Your task to perform on an android device: open wifi settings Image 0: 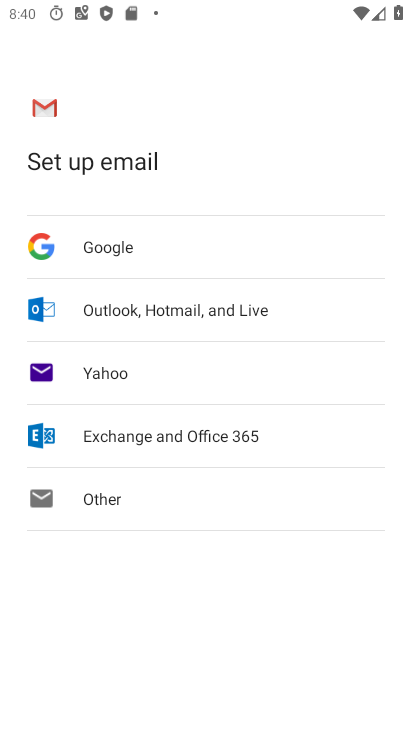
Step 0: press back button
Your task to perform on an android device: open wifi settings Image 1: 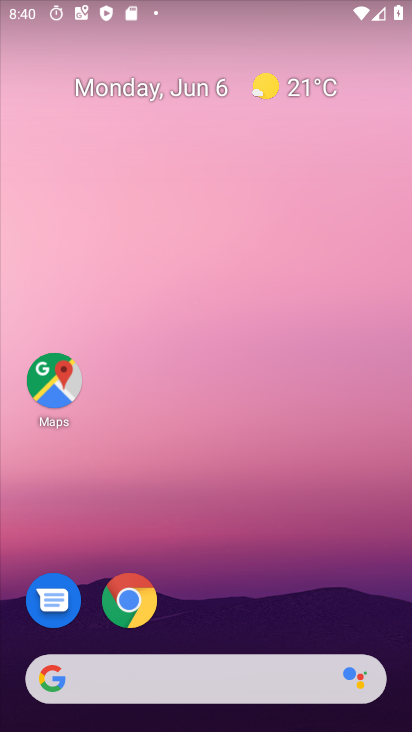
Step 1: drag from (263, 516) to (257, 19)
Your task to perform on an android device: open wifi settings Image 2: 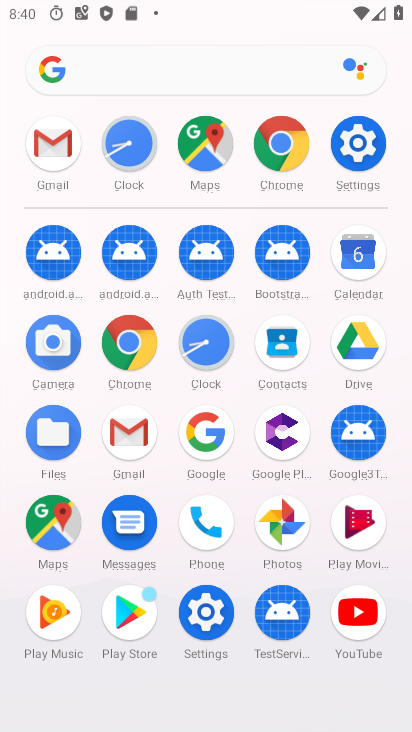
Step 2: drag from (10, 572) to (15, 296)
Your task to perform on an android device: open wifi settings Image 3: 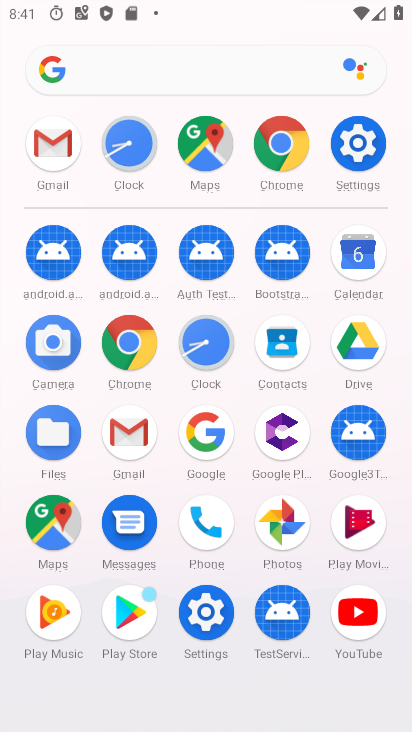
Step 3: click (202, 608)
Your task to perform on an android device: open wifi settings Image 4: 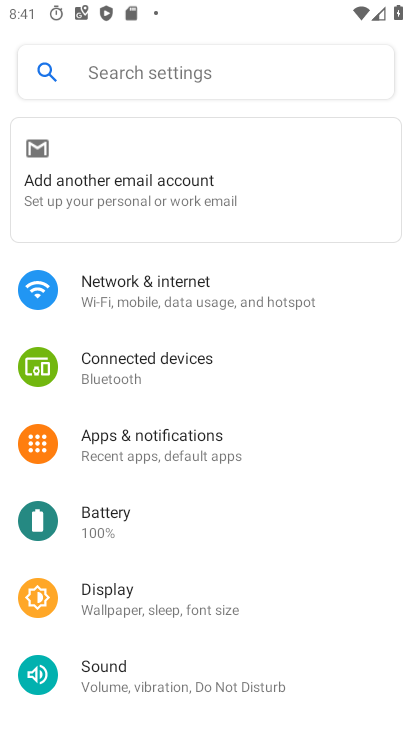
Step 4: click (184, 304)
Your task to perform on an android device: open wifi settings Image 5: 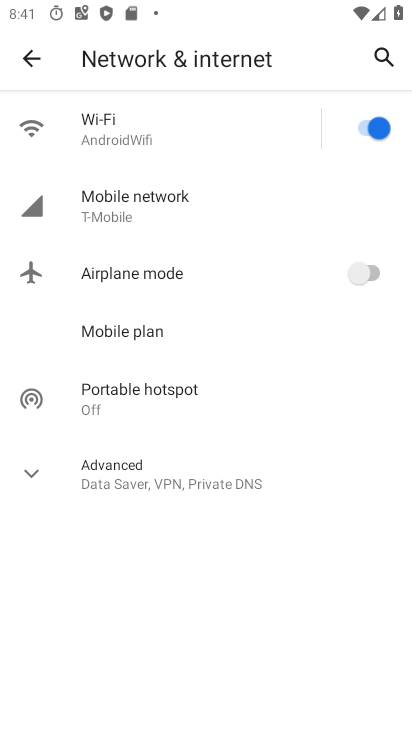
Step 5: click (189, 129)
Your task to perform on an android device: open wifi settings Image 6: 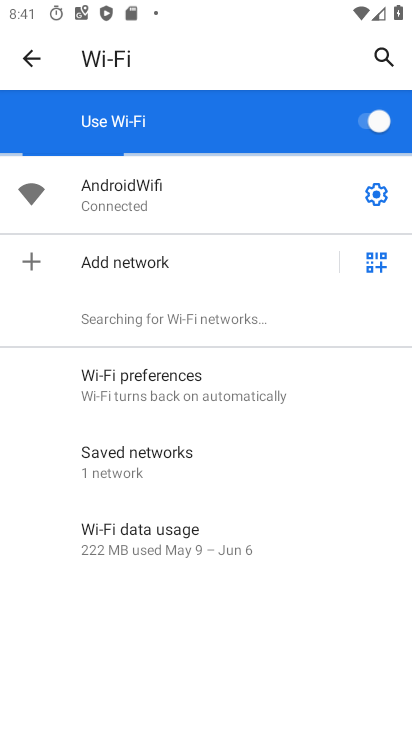
Step 6: task complete